Your task to perform on an android device: turn on location history Image 0: 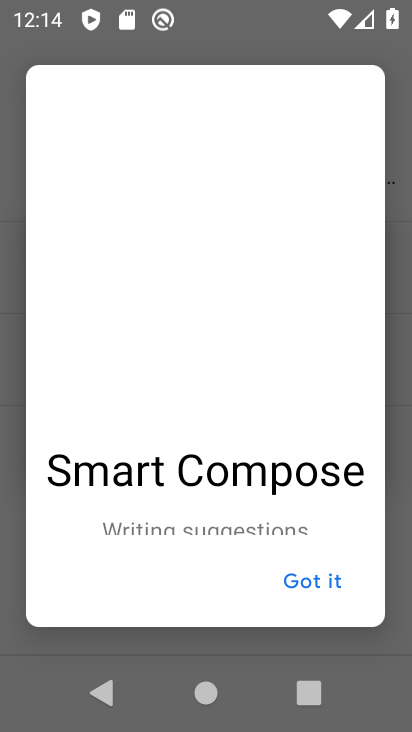
Step 0: press home button
Your task to perform on an android device: turn on location history Image 1: 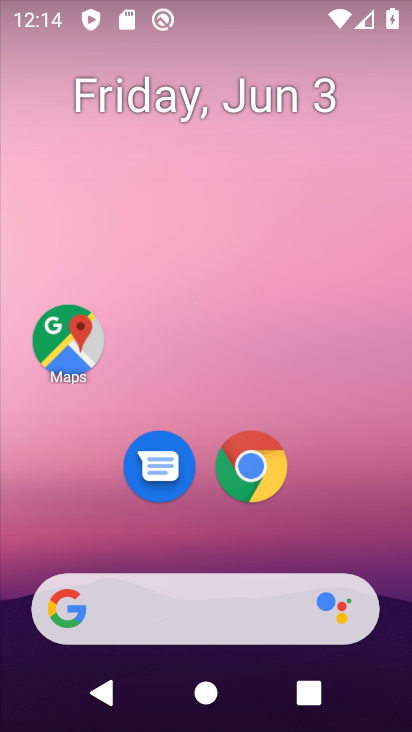
Step 1: drag from (162, 727) to (149, 132)
Your task to perform on an android device: turn on location history Image 2: 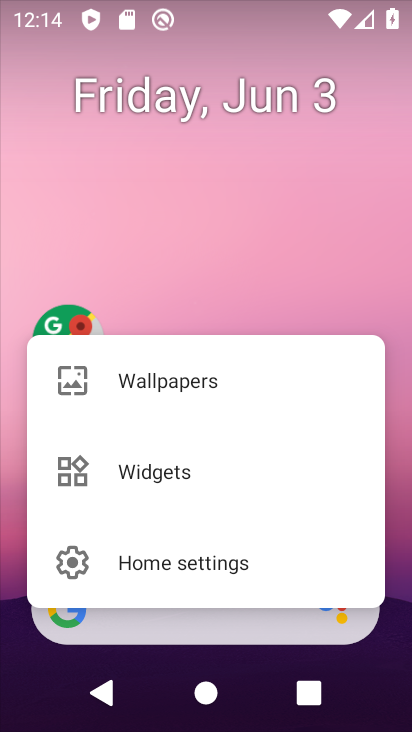
Step 2: click (136, 714)
Your task to perform on an android device: turn on location history Image 3: 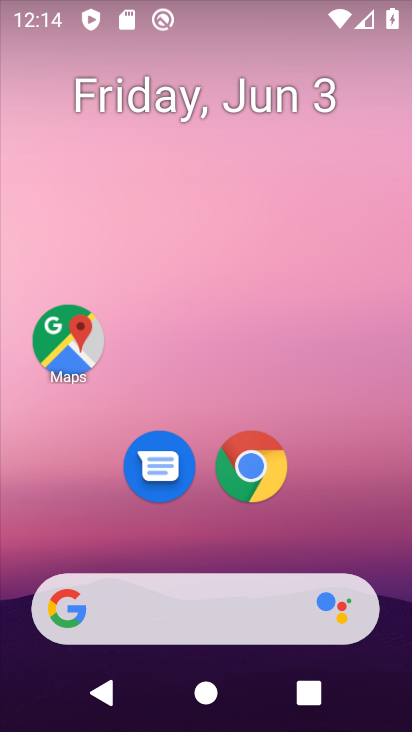
Step 3: drag from (159, 729) to (297, 0)
Your task to perform on an android device: turn on location history Image 4: 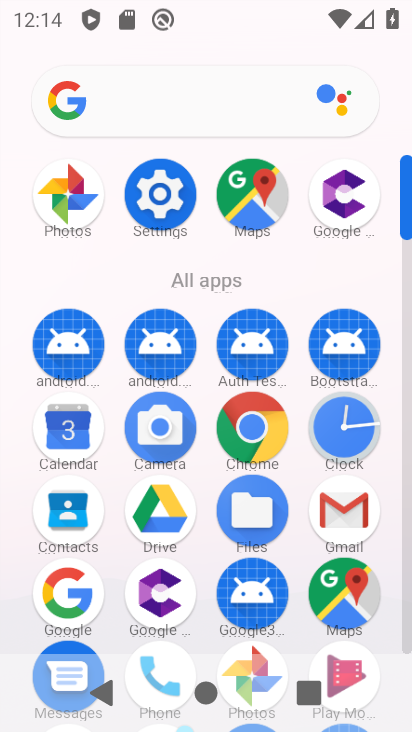
Step 4: click (150, 200)
Your task to perform on an android device: turn on location history Image 5: 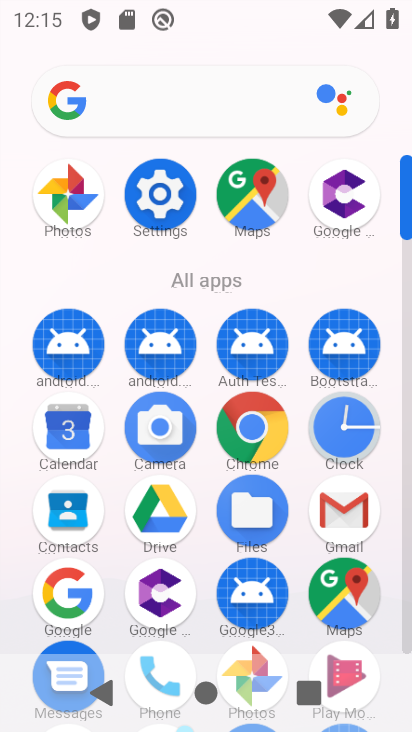
Step 5: click (178, 214)
Your task to perform on an android device: turn on location history Image 6: 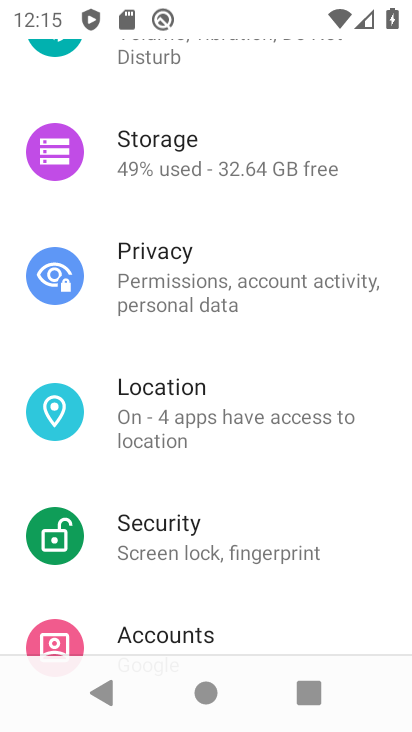
Step 6: click (187, 427)
Your task to perform on an android device: turn on location history Image 7: 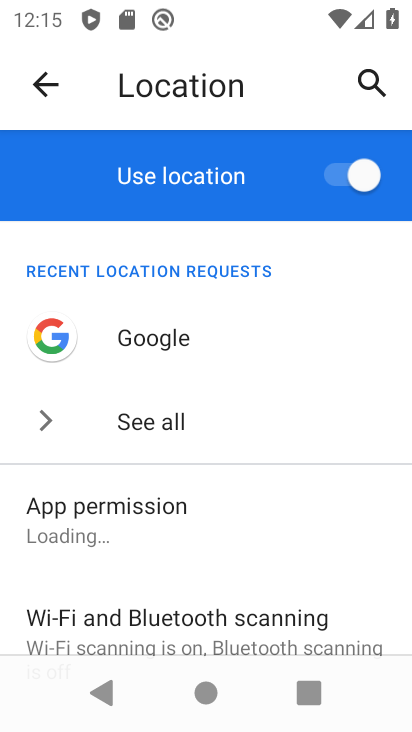
Step 7: drag from (200, 548) to (258, 87)
Your task to perform on an android device: turn on location history Image 8: 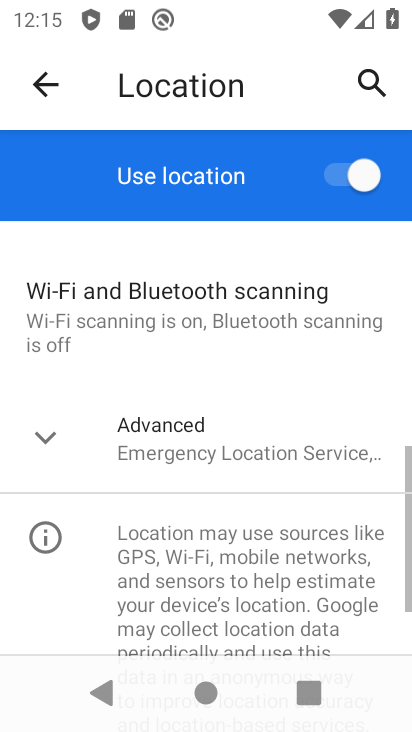
Step 8: drag from (290, 269) to (296, 516)
Your task to perform on an android device: turn on location history Image 9: 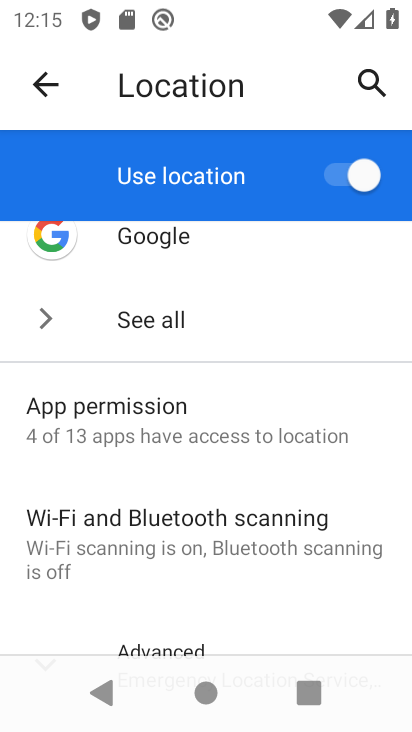
Step 9: drag from (209, 430) to (195, 646)
Your task to perform on an android device: turn on location history Image 10: 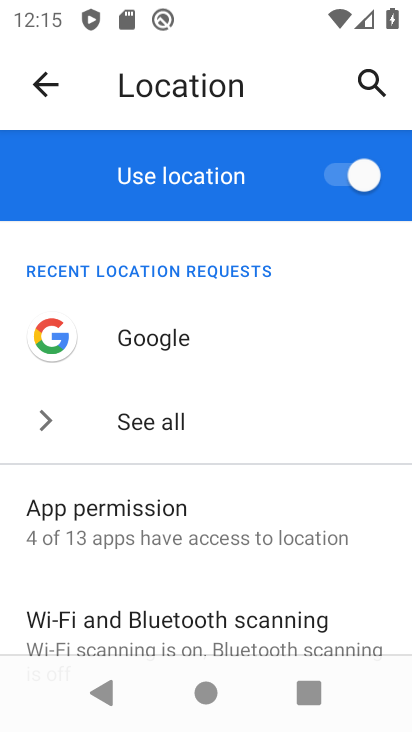
Step 10: drag from (269, 584) to (303, 339)
Your task to perform on an android device: turn on location history Image 11: 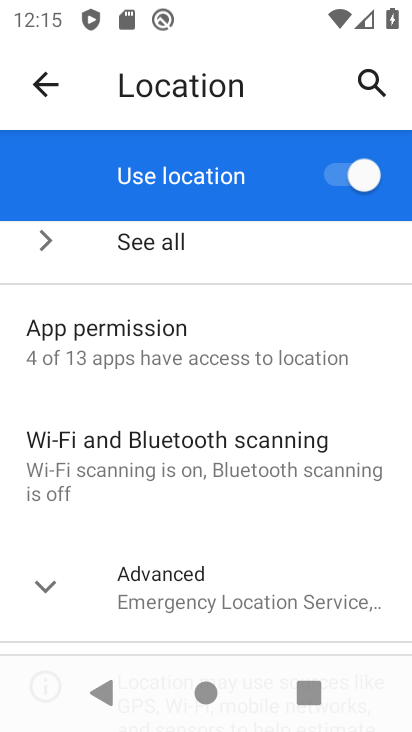
Step 11: click (178, 582)
Your task to perform on an android device: turn on location history Image 12: 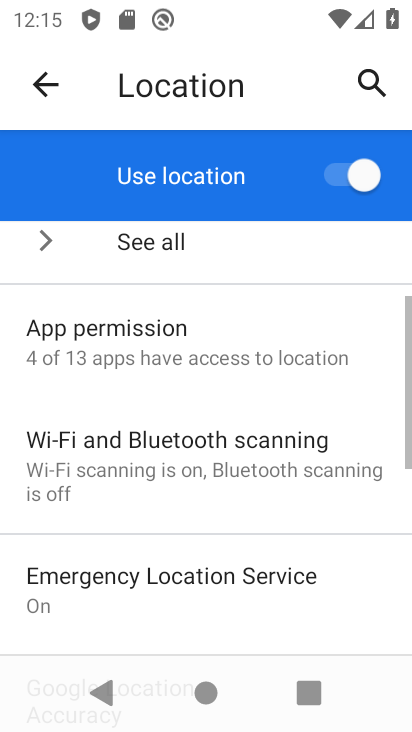
Step 12: drag from (204, 602) to (203, 339)
Your task to perform on an android device: turn on location history Image 13: 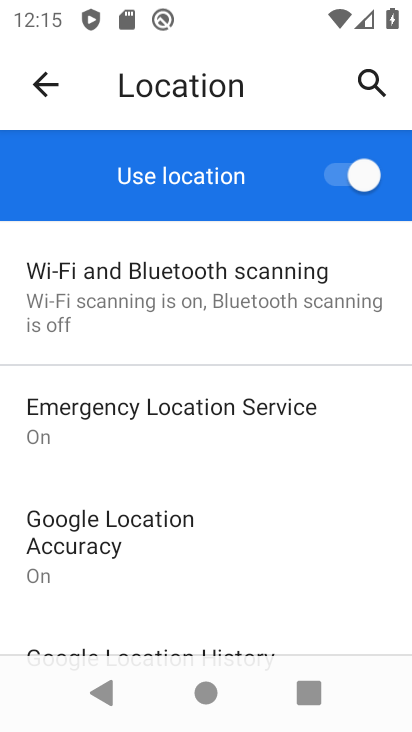
Step 13: drag from (138, 569) to (156, 298)
Your task to perform on an android device: turn on location history Image 14: 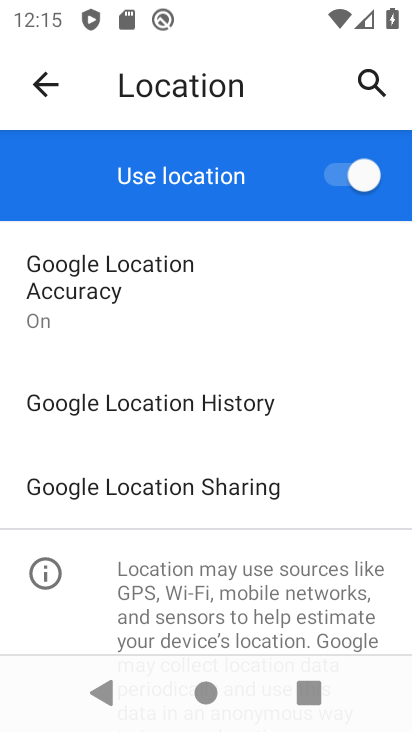
Step 14: click (178, 404)
Your task to perform on an android device: turn on location history Image 15: 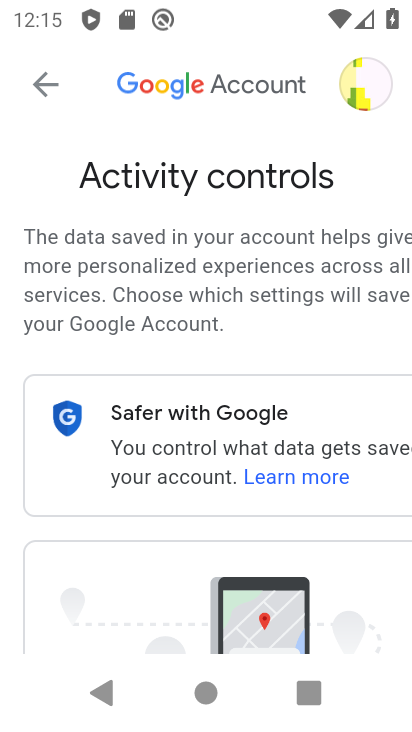
Step 15: task complete